Your task to perform on an android device: turn smart compose on in the gmail app Image 0: 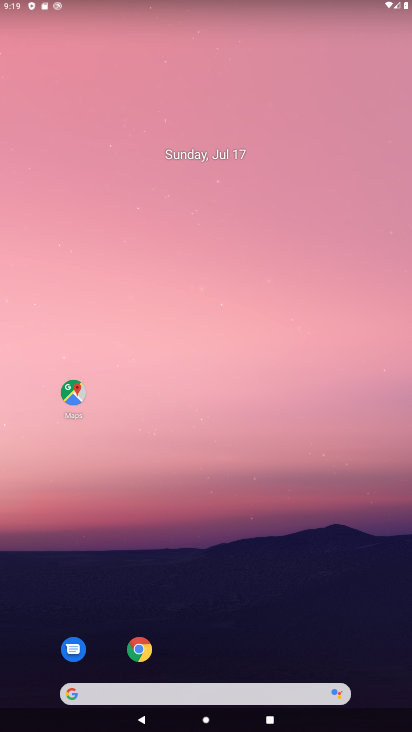
Step 0: drag from (34, 627) to (245, 13)
Your task to perform on an android device: turn smart compose on in the gmail app Image 1: 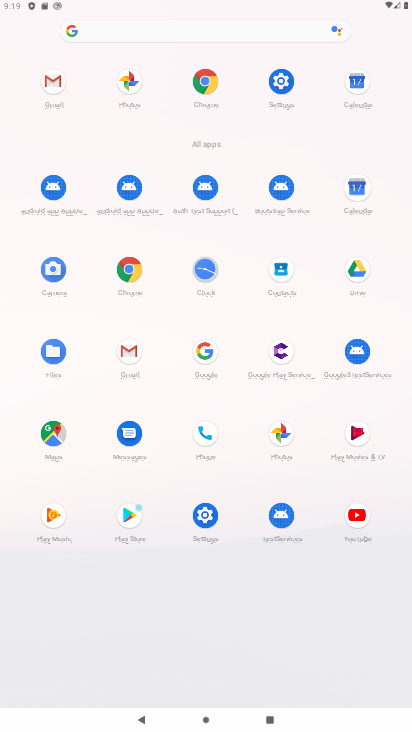
Step 1: click (135, 349)
Your task to perform on an android device: turn smart compose on in the gmail app Image 2: 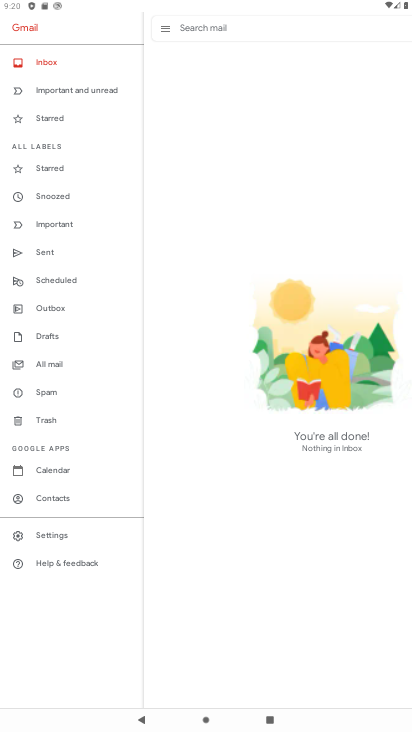
Step 2: click (43, 526)
Your task to perform on an android device: turn smart compose on in the gmail app Image 3: 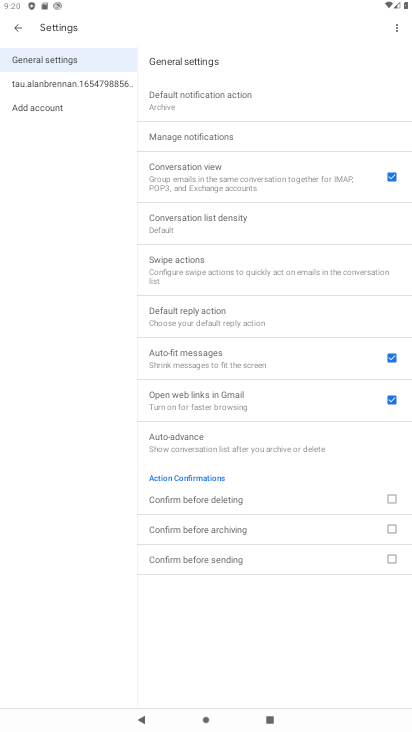
Step 3: click (72, 80)
Your task to perform on an android device: turn smart compose on in the gmail app Image 4: 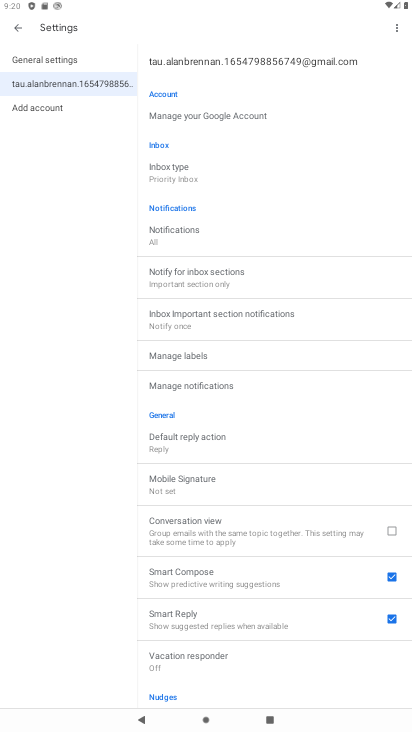
Step 4: task complete